Your task to perform on an android device: change the clock display to digital Image 0: 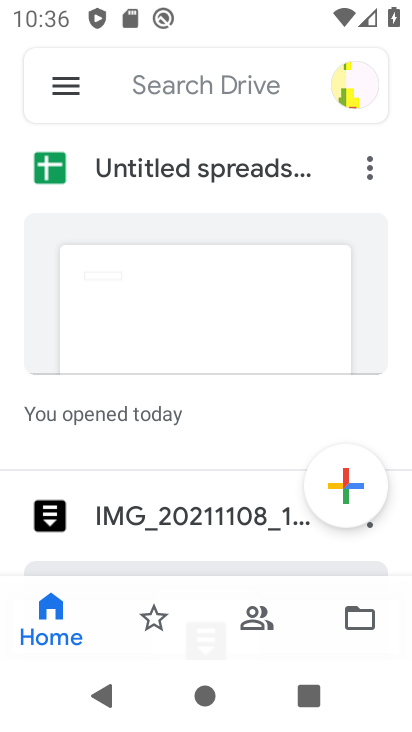
Step 0: press home button
Your task to perform on an android device: change the clock display to digital Image 1: 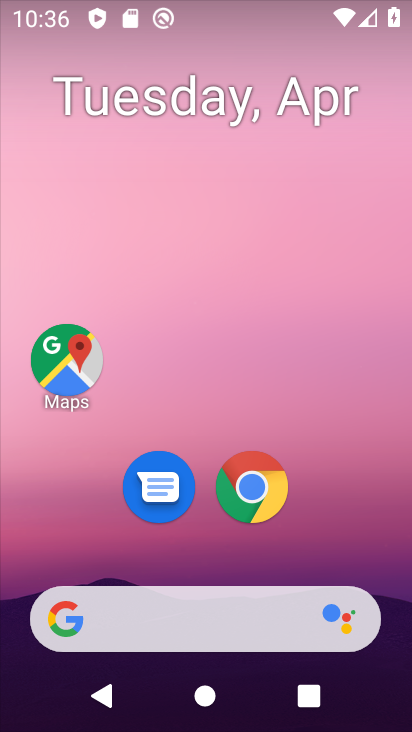
Step 1: drag from (178, 593) to (53, 75)
Your task to perform on an android device: change the clock display to digital Image 2: 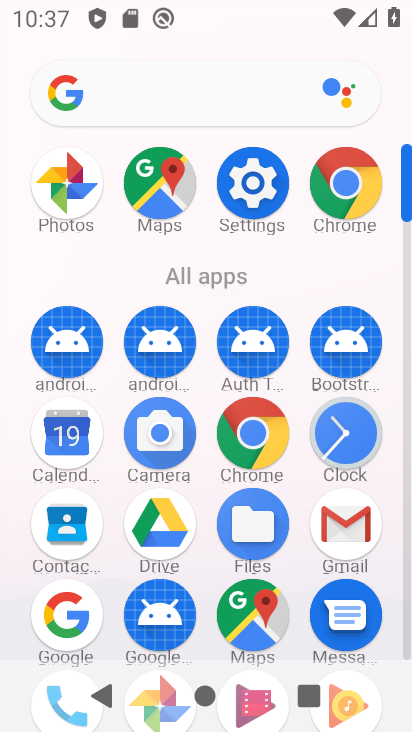
Step 2: click (338, 441)
Your task to perform on an android device: change the clock display to digital Image 3: 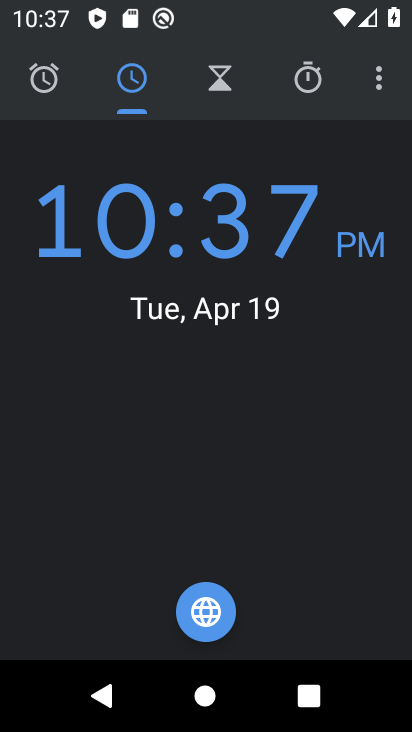
Step 3: click (384, 90)
Your task to perform on an android device: change the clock display to digital Image 4: 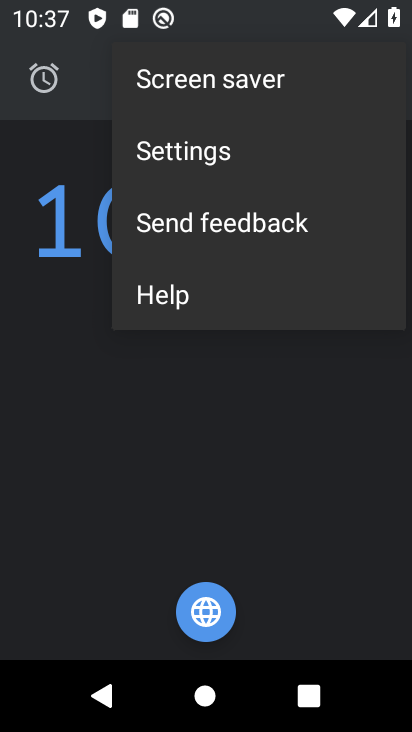
Step 4: click (237, 145)
Your task to perform on an android device: change the clock display to digital Image 5: 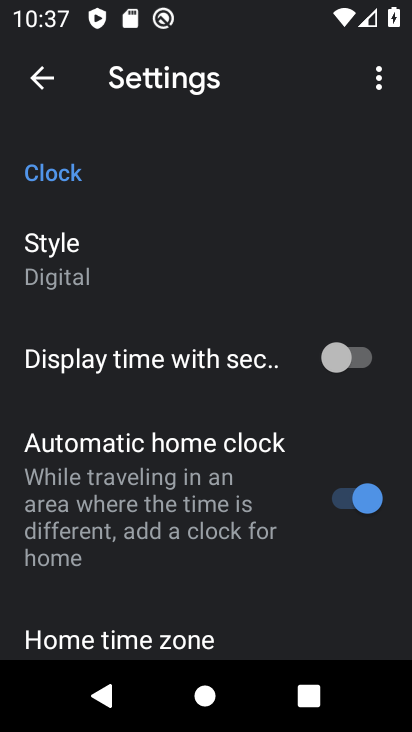
Step 5: task complete